Your task to perform on an android device: Open Maps and search for coffee Image 0: 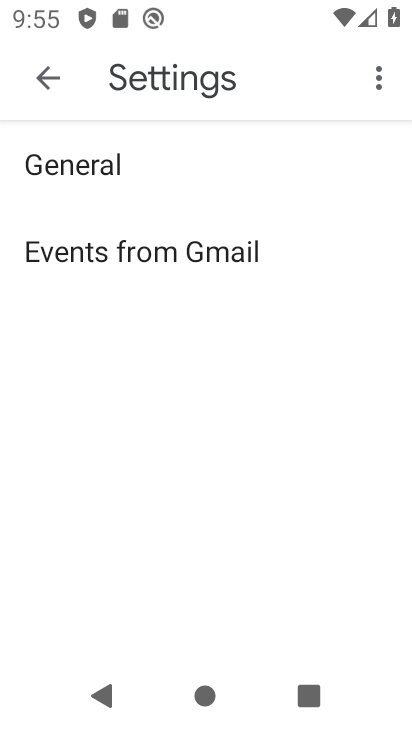
Step 0: press back button
Your task to perform on an android device: Open Maps and search for coffee Image 1: 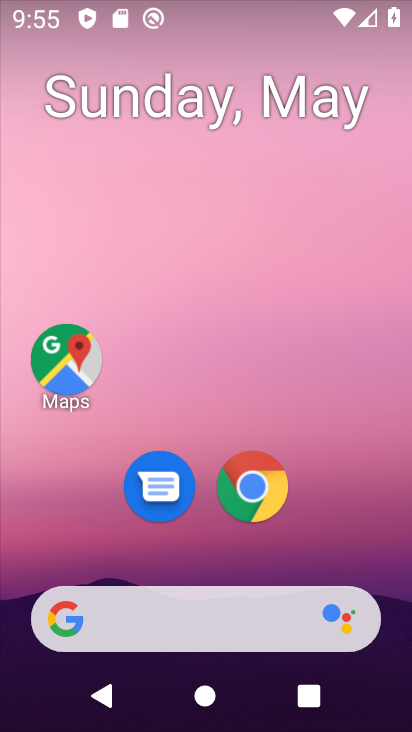
Step 1: click (64, 361)
Your task to perform on an android device: Open Maps and search for coffee Image 2: 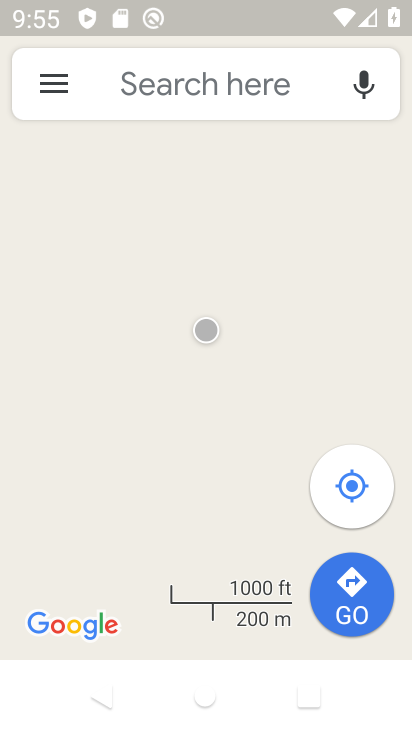
Step 2: click (231, 96)
Your task to perform on an android device: Open Maps and search for coffee Image 3: 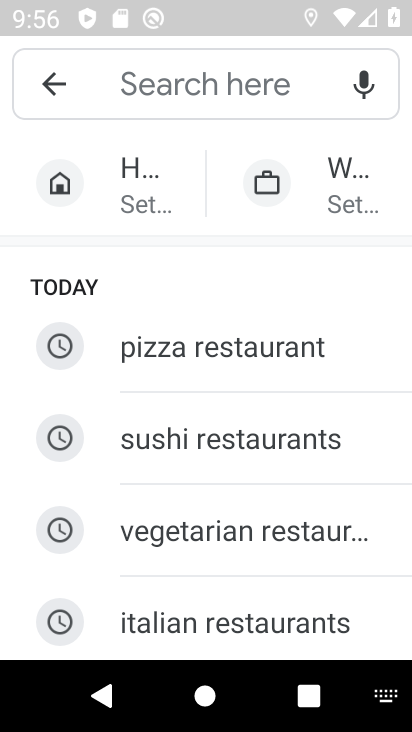
Step 3: type "coffee"
Your task to perform on an android device: Open Maps and search for coffee Image 4: 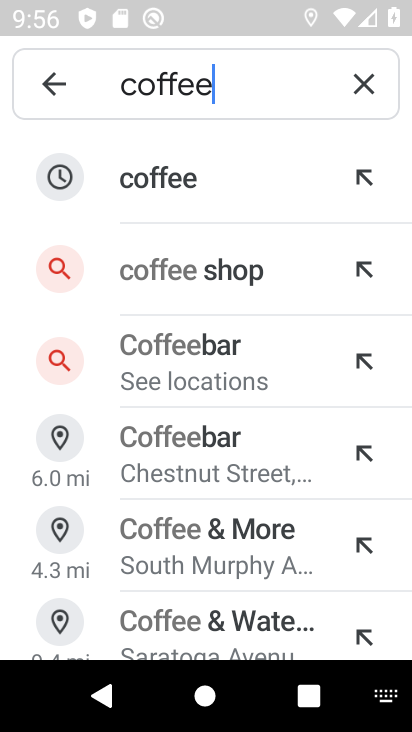
Step 4: click (140, 185)
Your task to perform on an android device: Open Maps and search for coffee Image 5: 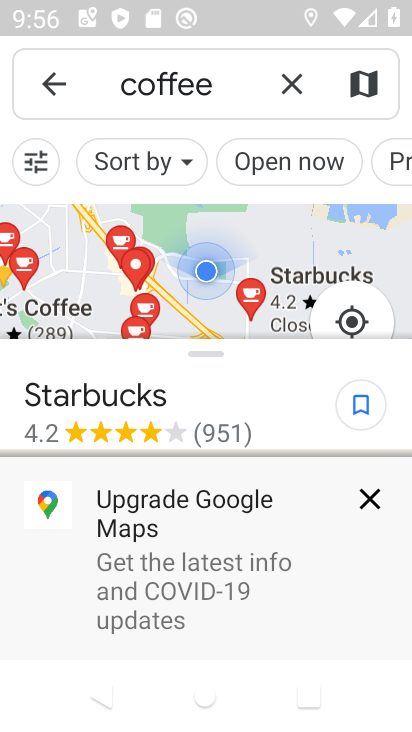
Step 5: click (373, 501)
Your task to perform on an android device: Open Maps and search for coffee Image 6: 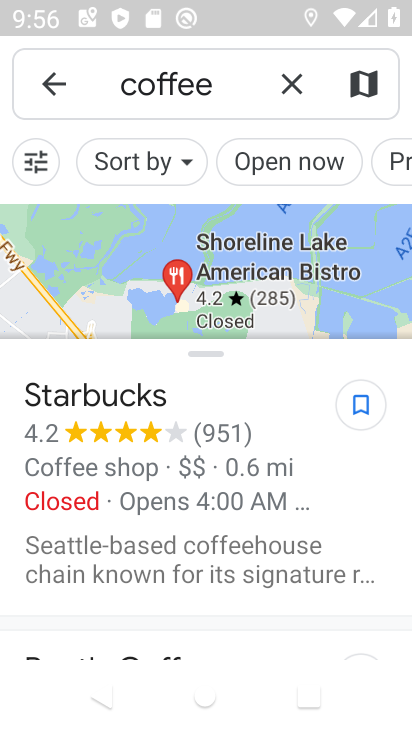
Step 6: task complete